Your task to perform on an android device: What's on my calendar tomorrow? Image 0: 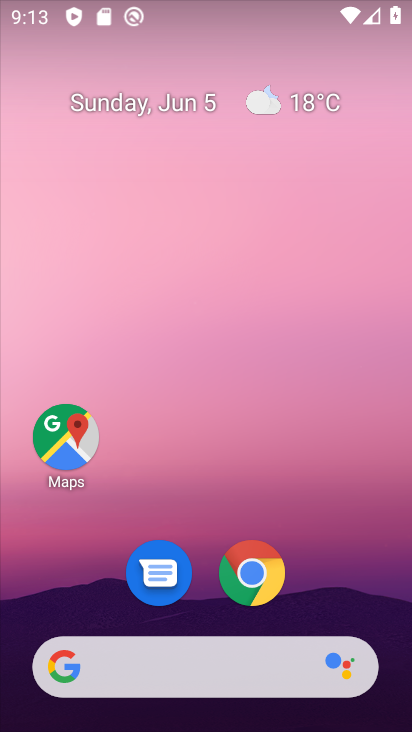
Step 0: drag from (198, 725) to (203, 35)
Your task to perform on an android device: What's on my calendar tomorrow? Image 1: 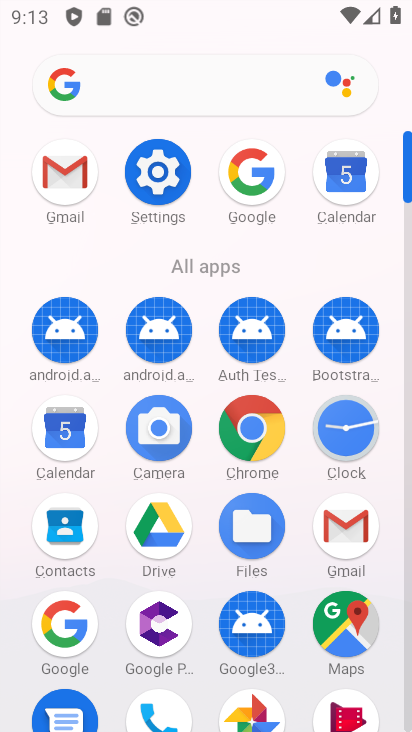
Step 1: click (59, 436)
Your task to perform on an android device: What's on my calendar tomorrow? Image 2: 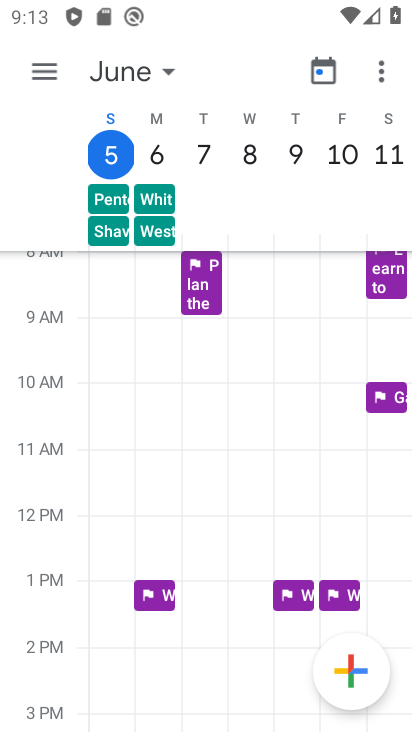
Step 2: click (158, 145)
Your task to perform on an android device: What's on my calendar tomorrow? Image 3: 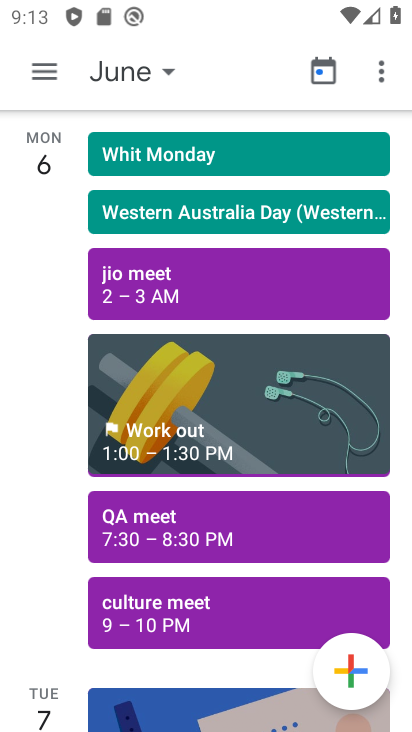
Step 3: task complete